Your task to perform on an android device: open a new tab in the chrome app Image 0: 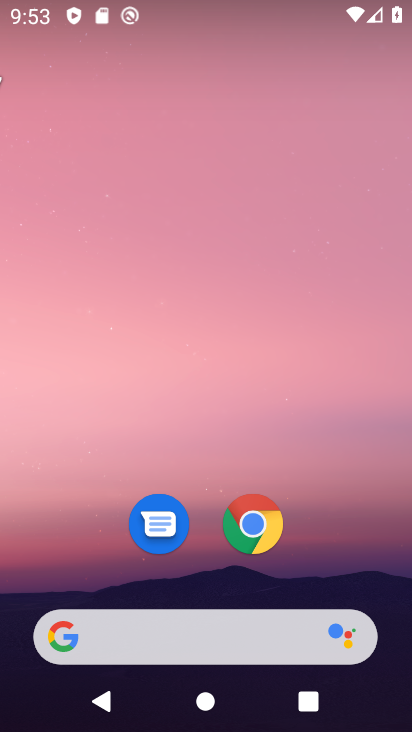
Step 0: drag from (213, 472) to (239, 136)
Your task to perform on an android device: open a new tab in the chrome app Image 1: 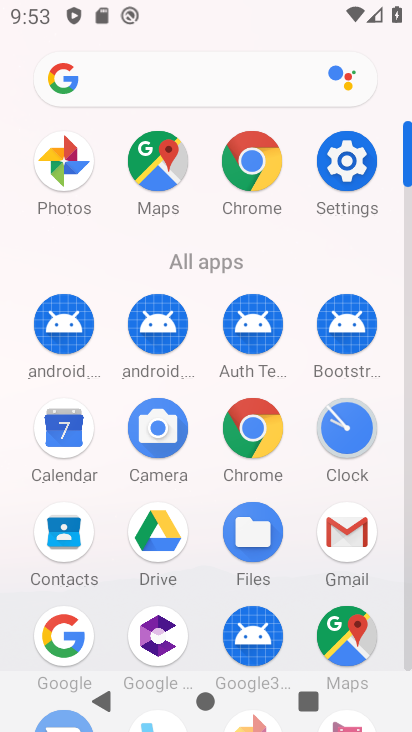
Step 1: click (251, 163)
Your task to perform on an android device: open a new tab in the chrome app Image 2: 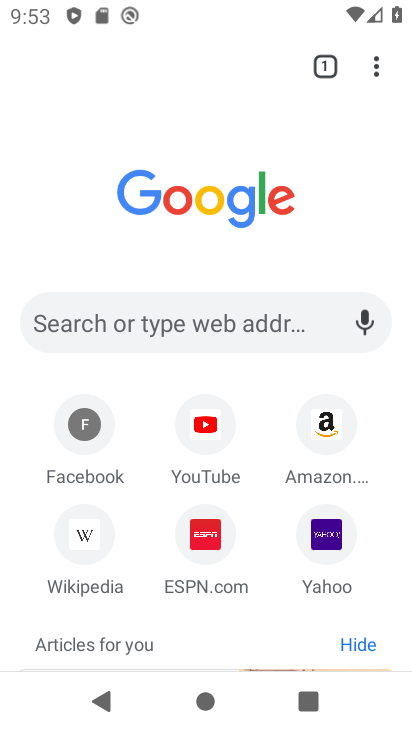
Step 2: click (377, 63)
Your task to perform on an android device: open a new tab in the chrome app Image 3: 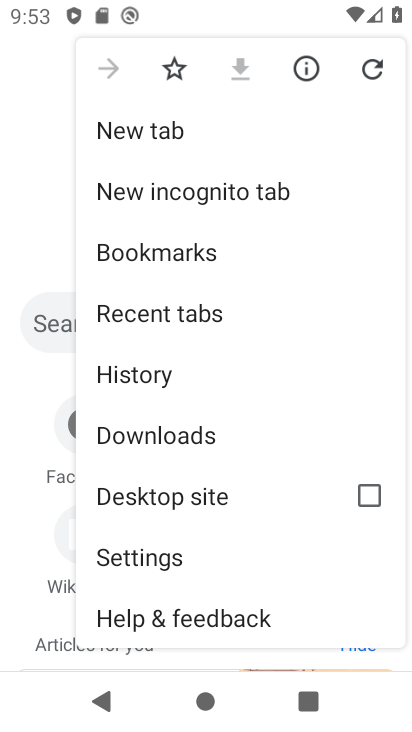
Step 3: click (224, 135)
Your task to perform on an android device: open a new tab in the chrome app Image 4: 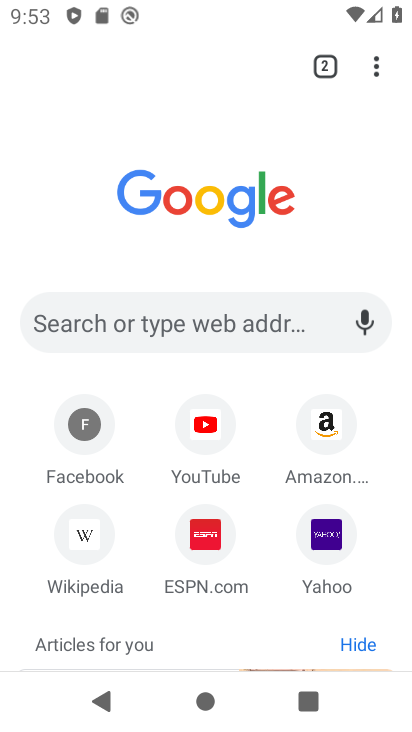
Step 4: task complete